Your task to perform on an android device: check android version Image 0: 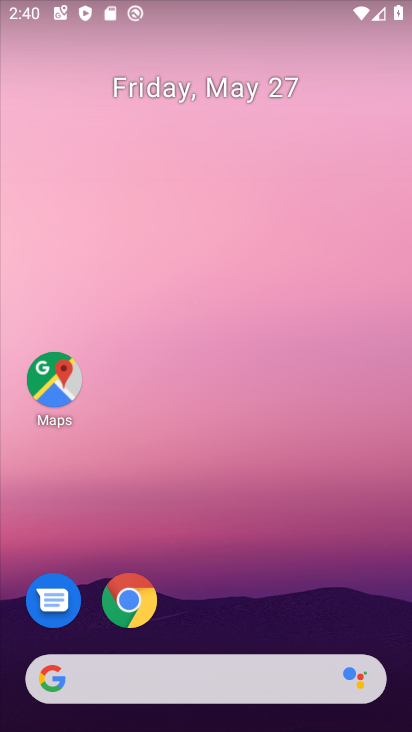
Step 0: drag from (283, 636) to (270, 165)
Your task to perform on an android device: check android version Image 1: 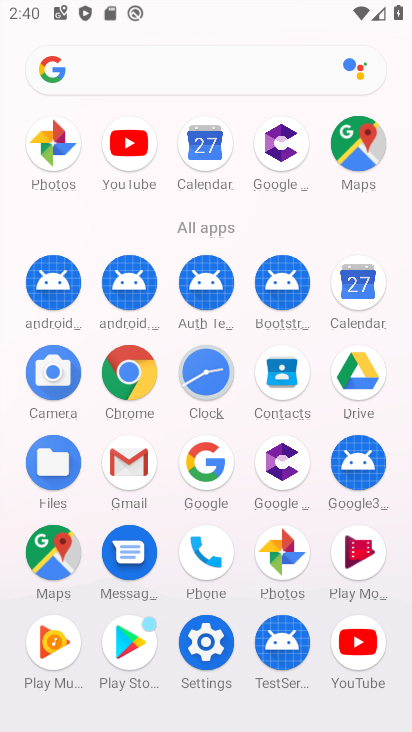
Step 1: drag from (232, 219) to (214, 46)
Your task to perform on an android device: check android version Image 2: 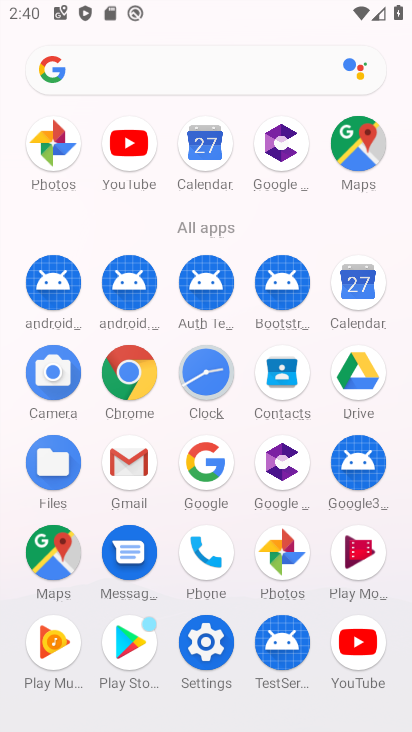
Step 2: click (200, 654)
Your task to perform on an android device: check android version Image 3: 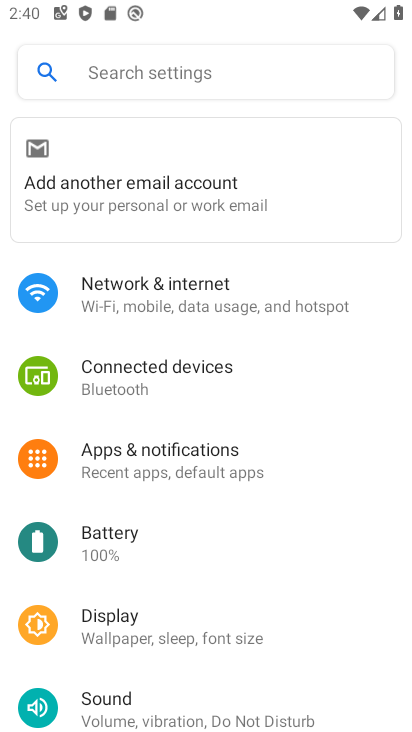
Step 3: drag from (193, 604) to (231, 113)
Your task to perform on an android device: check android version Image 4: 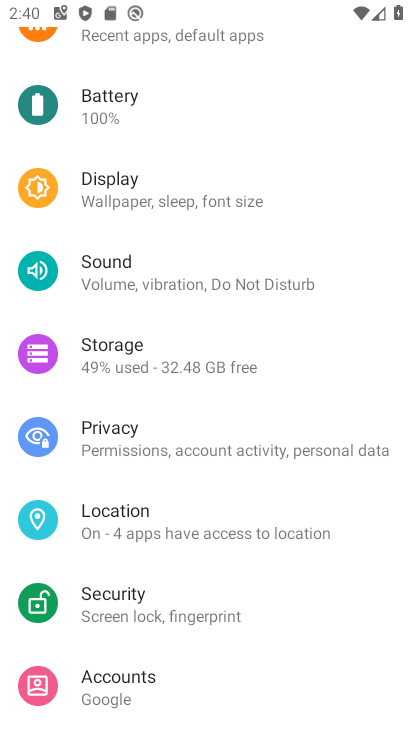
Step 4: drag from (197, 280) to (220, 34)
Your task to perform on an android device: check android version Image 5: 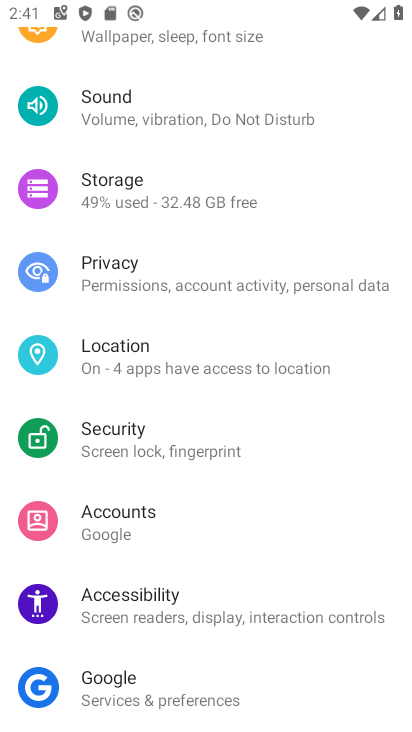
Step 5: drag from (216, 458) to (295, 23)
Your task to perform on an android device: check android version Image 6: 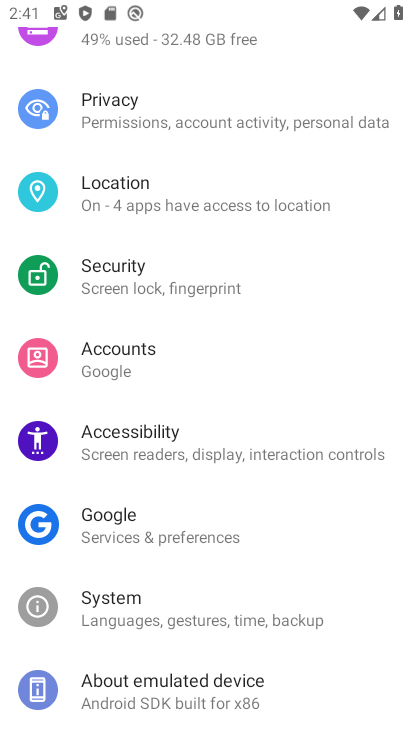
Step 6: click (219, 703)
Your task to perform on an android device: check android version Image 7: 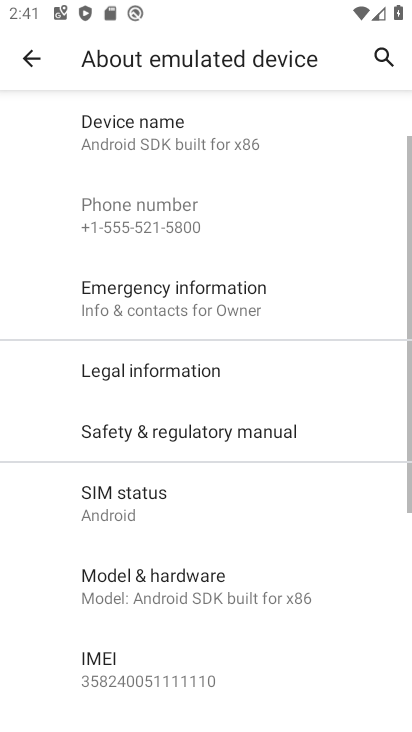
Step 7: drag from (175, 680) to (200, 324)
Your task to perform on an android device: check android version Image 8: 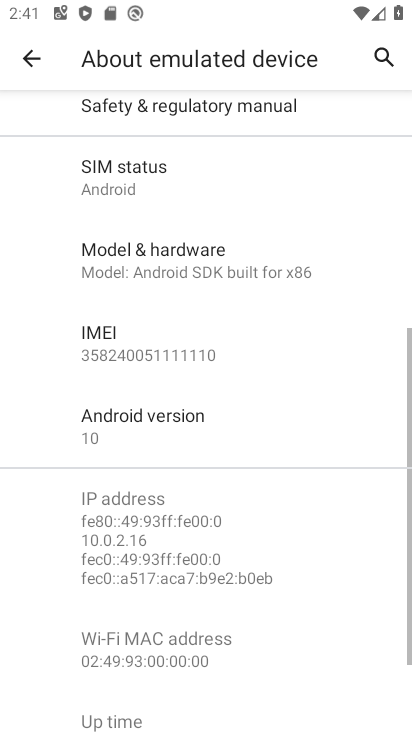
Step 8: click (220, 428)
Your task to perform on an android device: check android version Image 9: 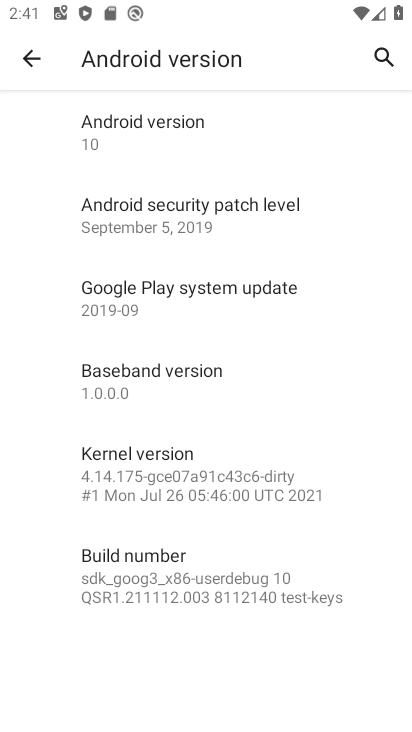
Step 9: click (211, 146)
Your task to perform on an android device: check android version Image 10: 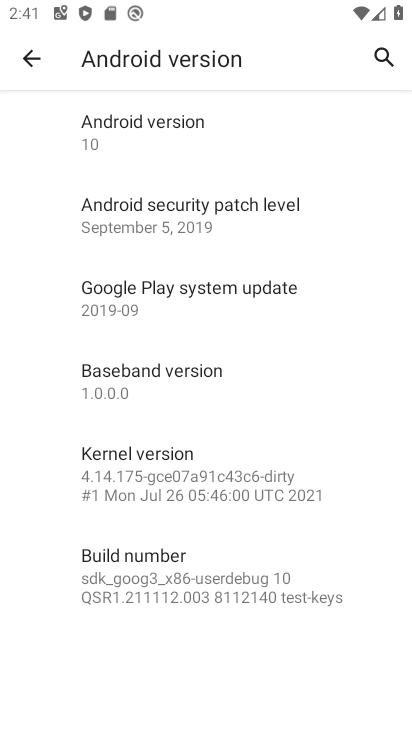
Step 10: task complete